Your task to perform on an android device: turn on bluetooth scan Image 0: 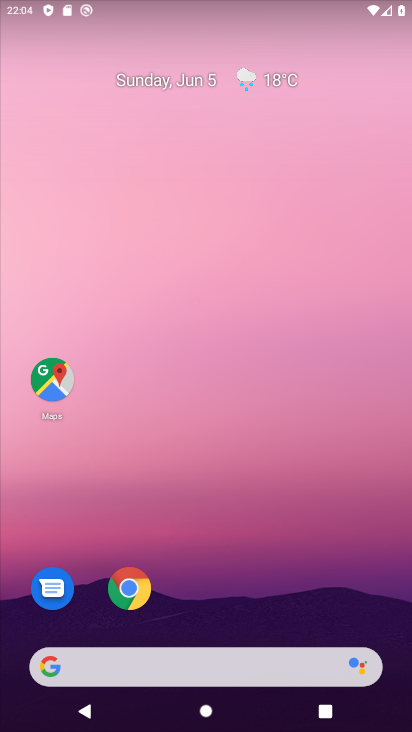
Step 0: drag from (197, 636) to (361, 112)
Your task to perform on an android device: turn on bluetooth scan Image 1: 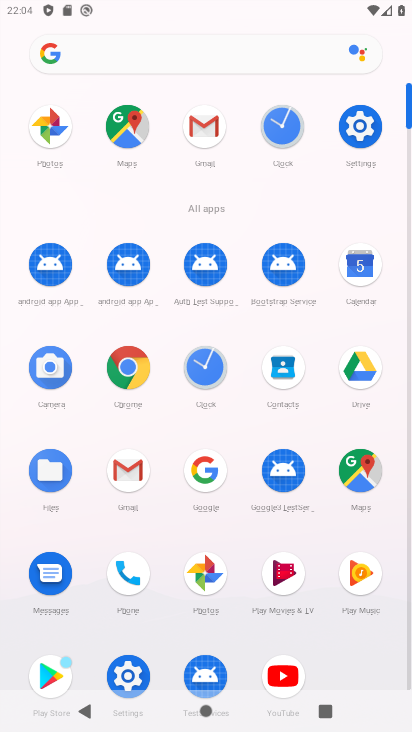
Step 1: drag from (221, 633) to (280, 379)
Your task to perform on an android device: turn on bluetooth scan Image 2: 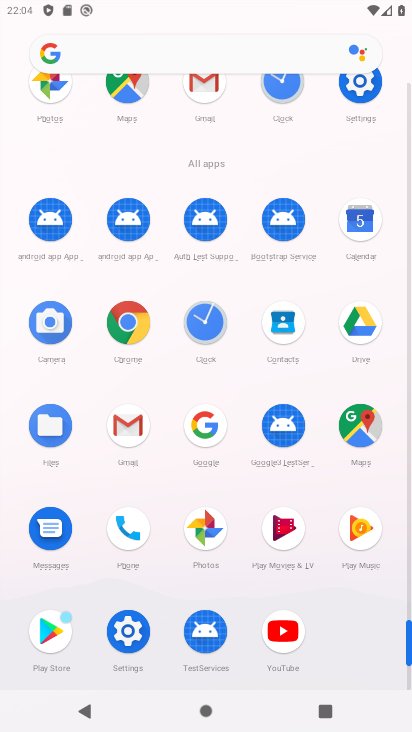
Step 2: click (129, 644)
Your task to perform on an android device: turn on bluetooth scan Image 3: 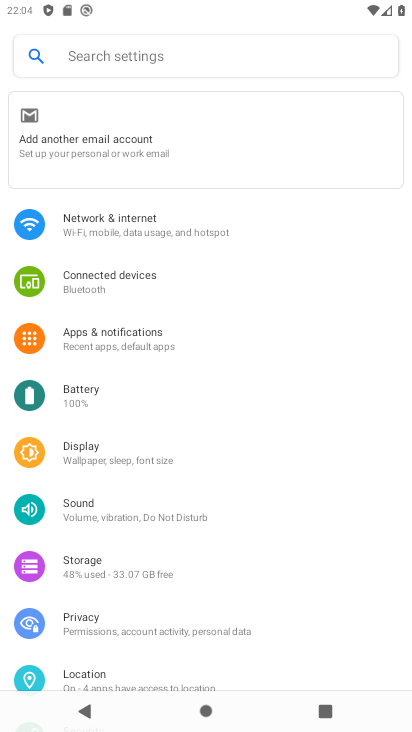
Step 3: click (206, 278)
Your task to perform on an android device: turn on bluetooth scan Image 4: 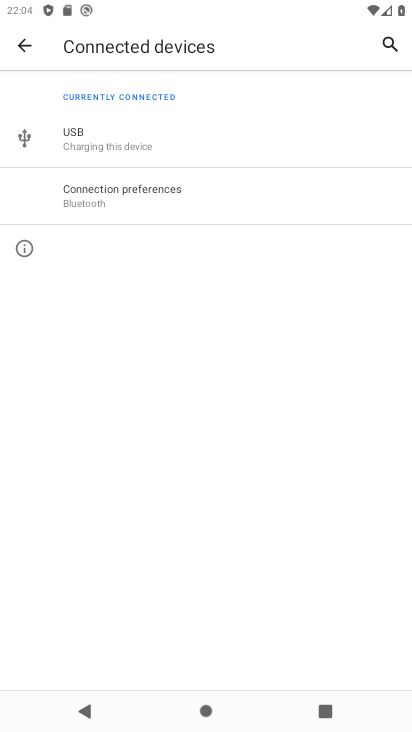
Step 4: click (195, 201)
Your task to perform on an android device: turn on bluetooth scan Image 5: 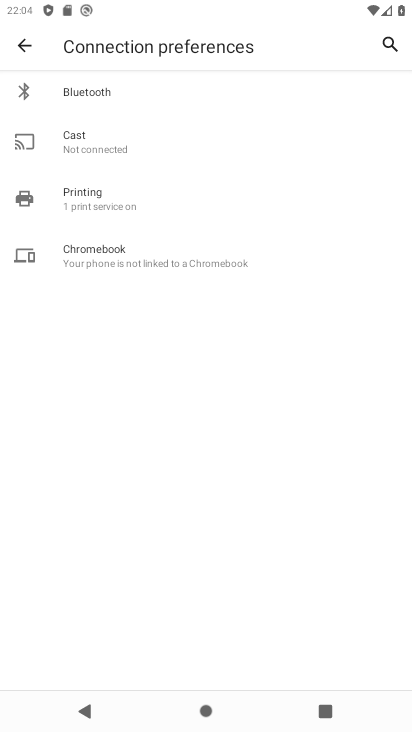
Step 5: click (309, 92)
Your task to perform on an android device: turn on bluetooth scan Image 6: 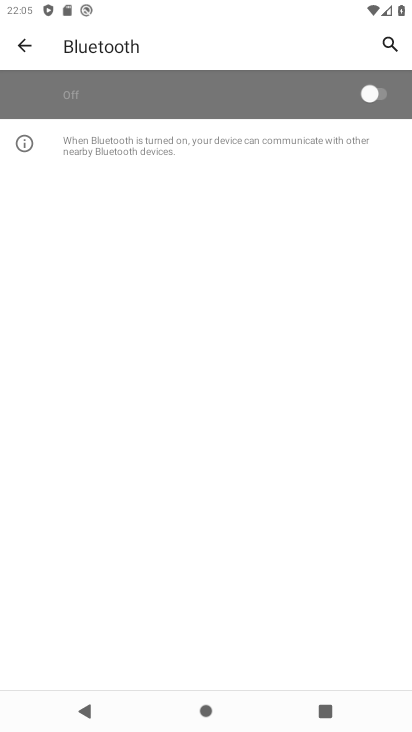
Step 6: click (393, 94)
Your task to perform on an android device: turn on bluetooth scan Image 7: 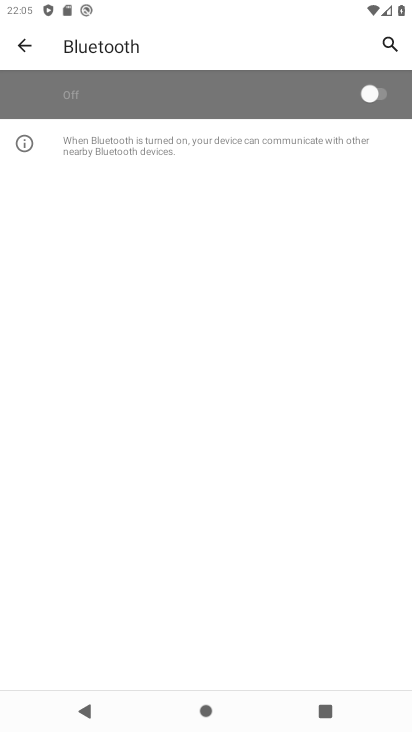
Step 7: click (393, 94)
Your task to perform on an android device: turn on bluetooth scan Image 8: 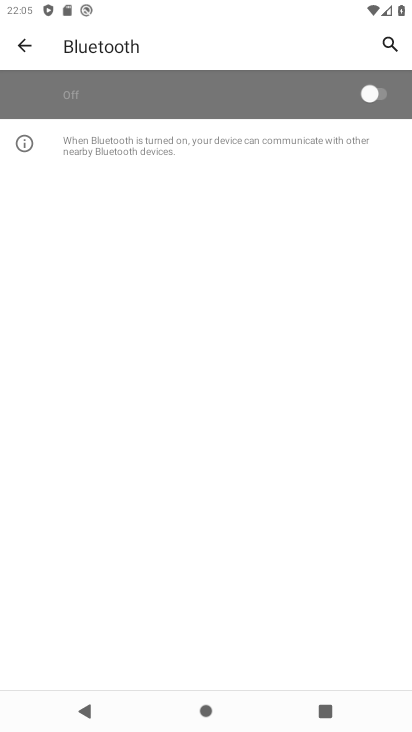
Step 8: click (380, 91)
Your task to perform on an android device: turn on bluetooth scan Image 9: 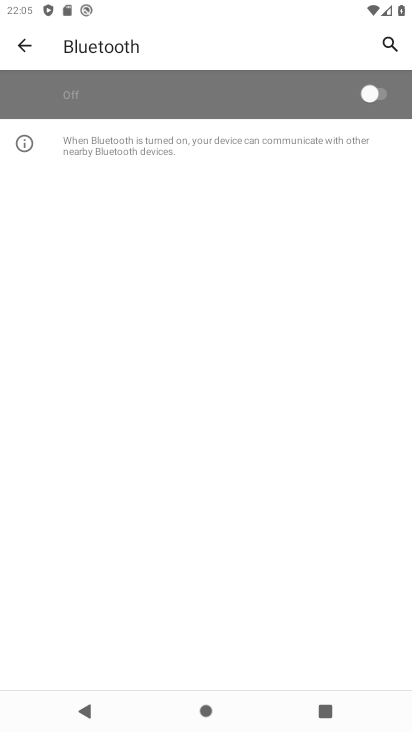
Step 9: task complete